Your task to perform on an android device: Open the calendar and show me this week's events Image 0: 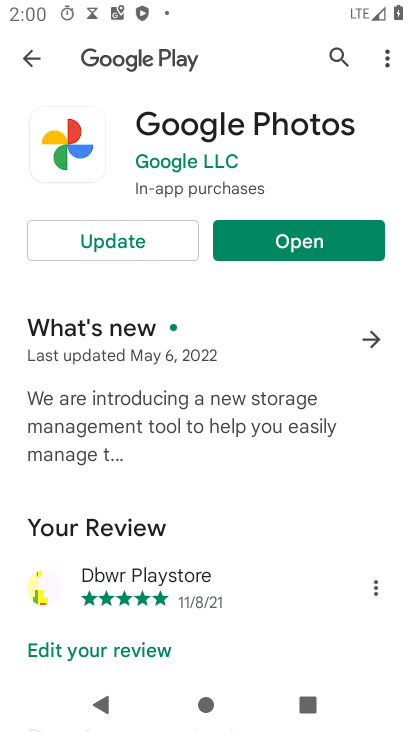
Step 0: press home button
Your task to perform on an android device: Open the calendar and show me this week's events Image 1: 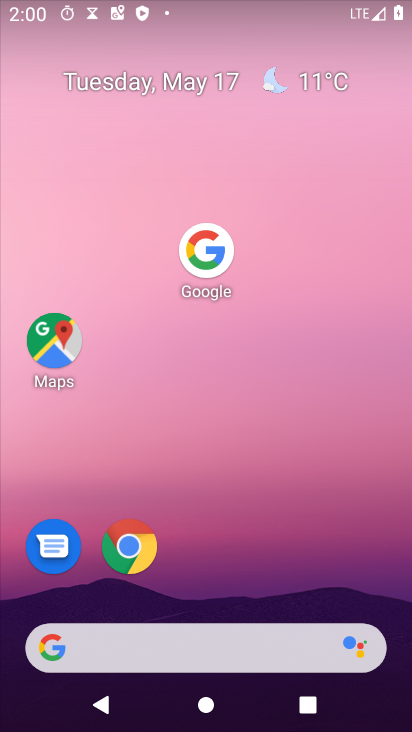
Step 1: drag from (143, 647) to (255, 228)
Your task to perform on an android device: Open the calendar and show me this week's events Image 2: 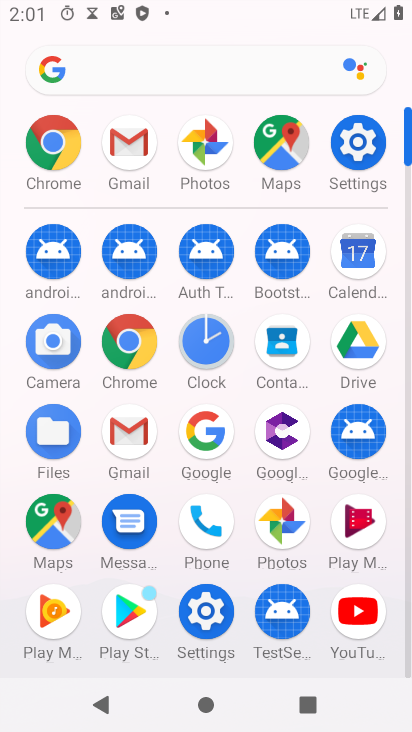
Step 2: click (352, 250)
Your task to perform on an android device: Open the calendar and show me this week's events Image 3: 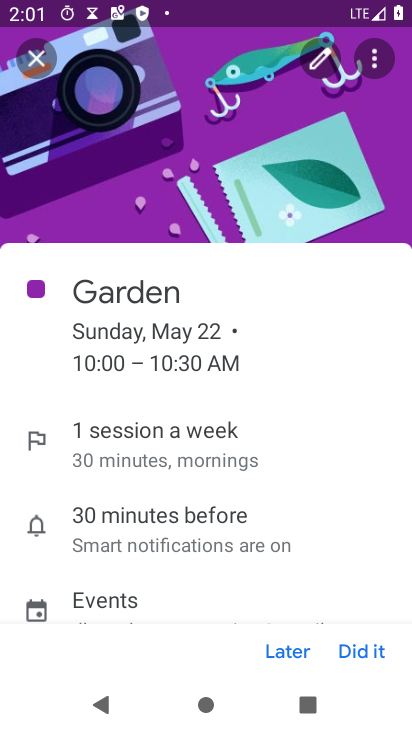
Step 3: click (35, 63)
Your task to perform on an android device: Open the calendar and show me this week's events Image 4: 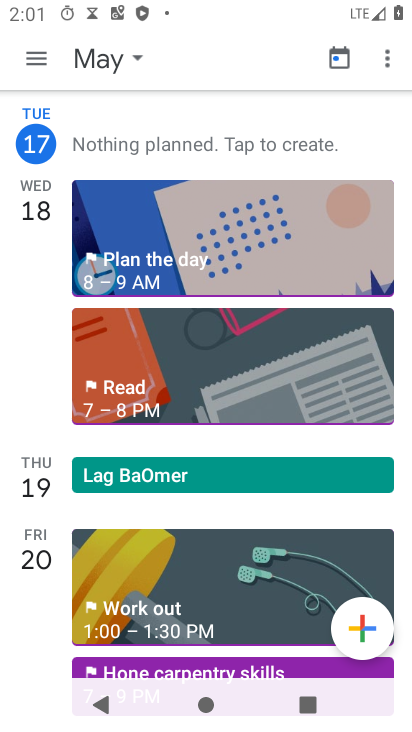
Step 4: click (110, 66)
Your task to perform on an android device: Open the calendar and show me this week's events Image 5: 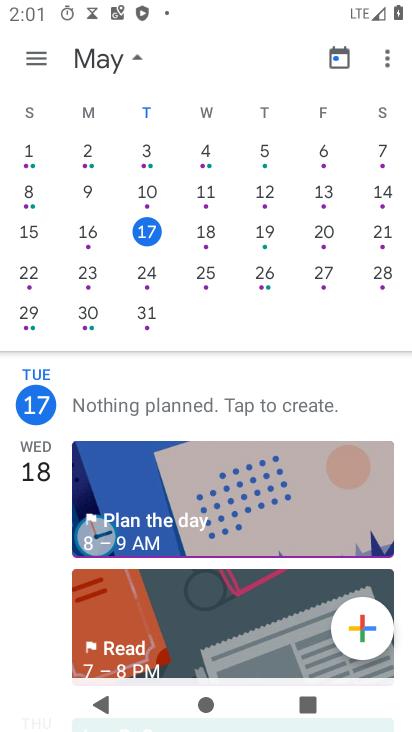
Step 5: click (30, 276)
Your task to perform on an android device: Open the calendar and show me this week's events Image 6: 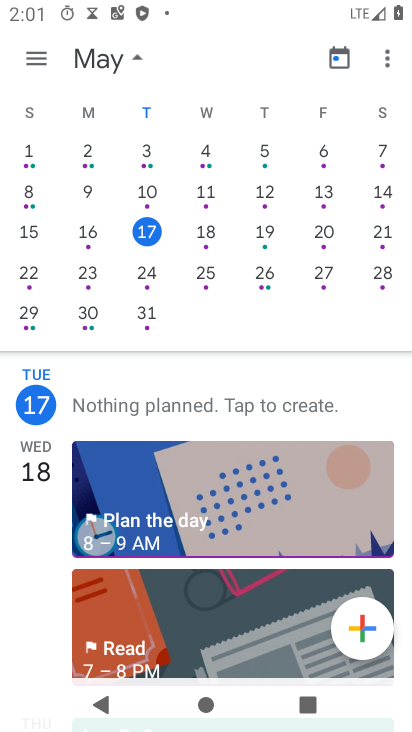
Step 6: click (37, 274)
Your task to perform on an android device: Open the calendar and show me this week's events Image 7: 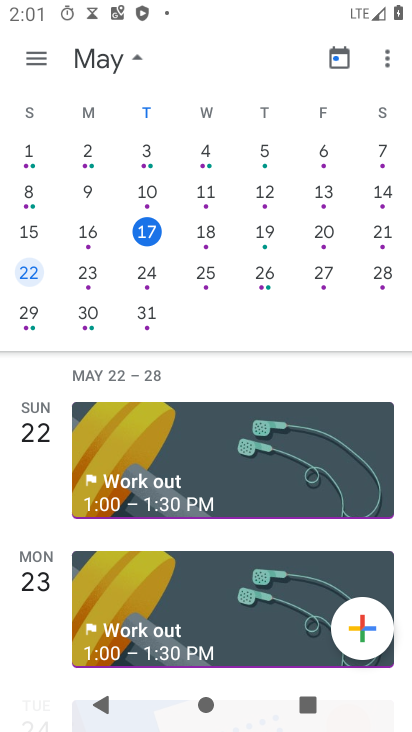
Step 7: click (91, 56)
Your task to perform on an android device: Open the calendar and show me this week's events Image 8: 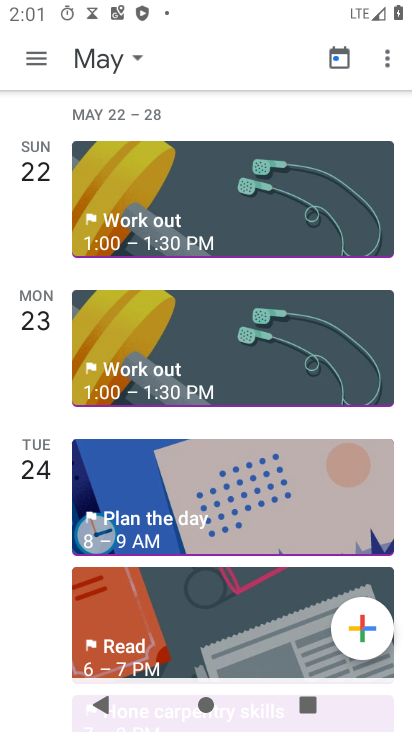
Step 8: click (99, 60)
Your task to perform on an android device: Open the calendar and show me this week's events Image 9: 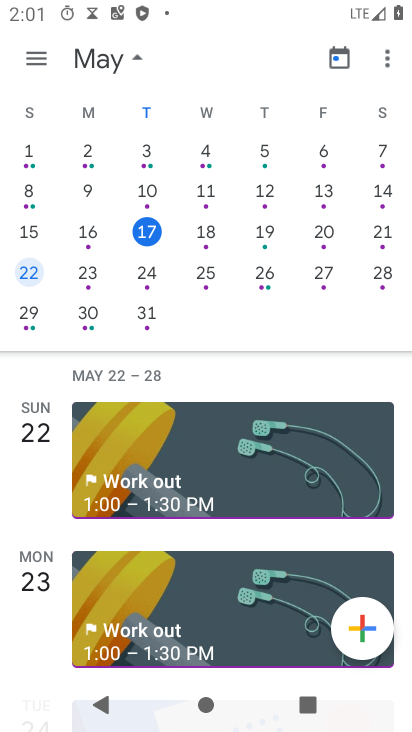
Step 9: click (27, 60)
Your task to perform on an android device: Open the calendar and show me this week's events Image 10: 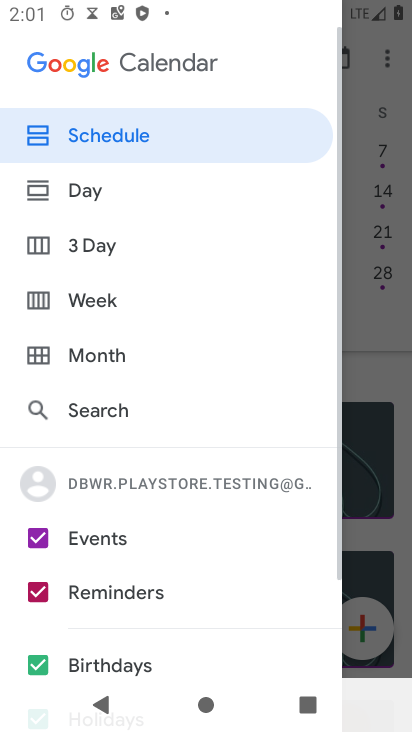
Step 10: click (98, 294)
Your task to perform on an android device: Open the calendar and show me this week's events Image 11: 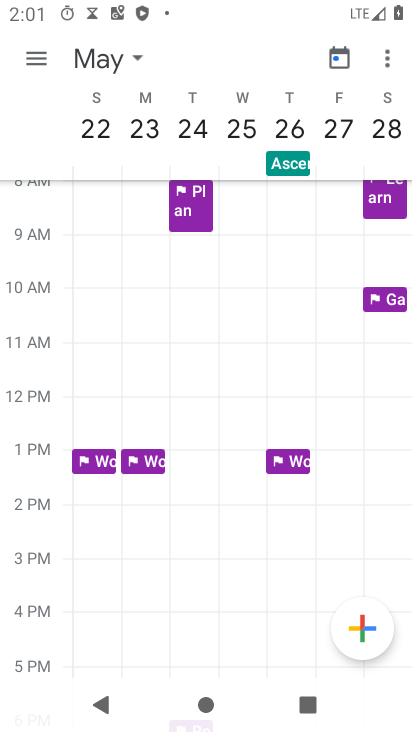
Step 11: click (38, 59)
Your task to perform on an android device: Open the calendar and show me this week's events Image 12: 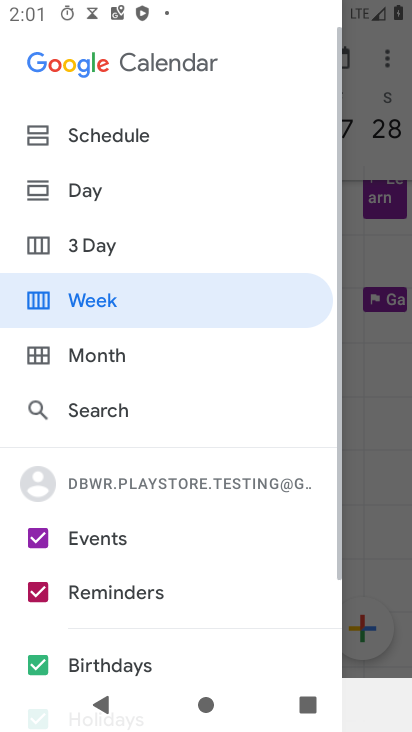
Step 12: click (91, 129)
Your task to perform on an android device: Open the calendar and show me this week's events Image 13: 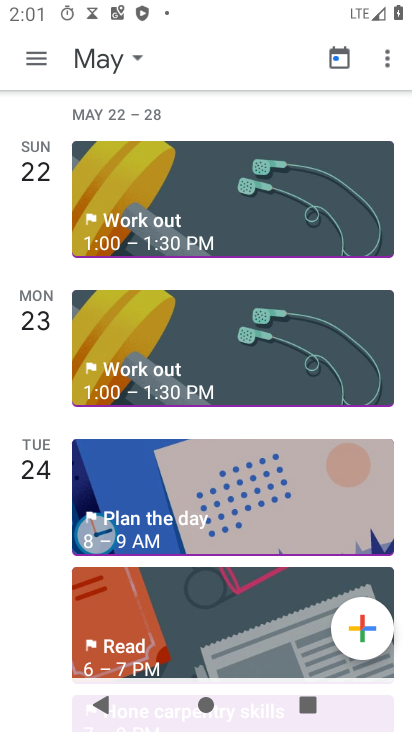
Step 13: drag from (200, 645) to (371, 159)
Your task to perform on an android device: Open the calendar and show me this week's events Image 14: 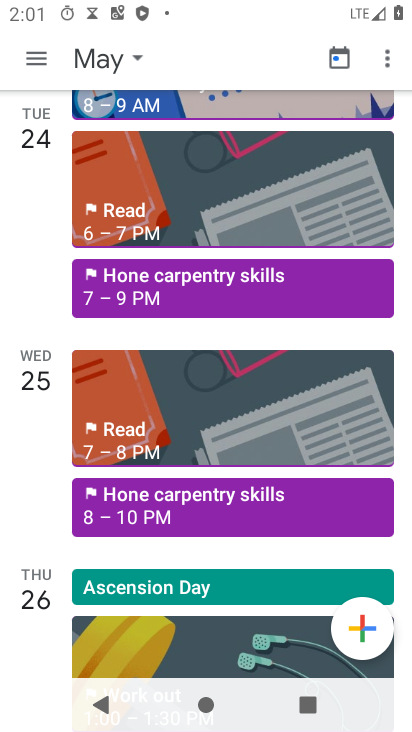
Step 14: click (201, 294)
Your task to perform on an android device: Open the calendar and show me this week's events Image 15: 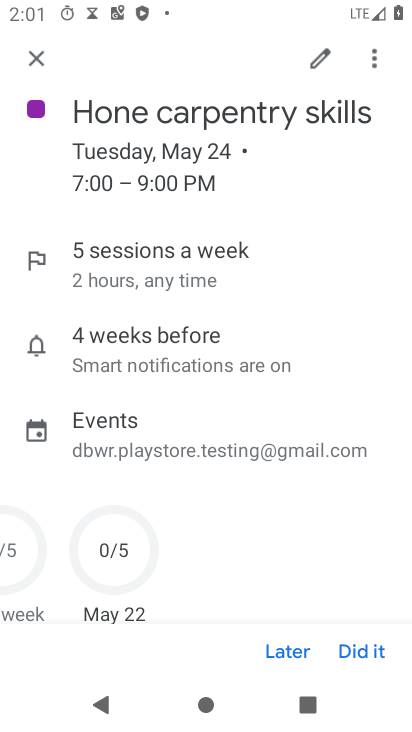
Step 15: task complete